Your task to perform on an android device: toggle priority inbox in the gmail app Image 0: 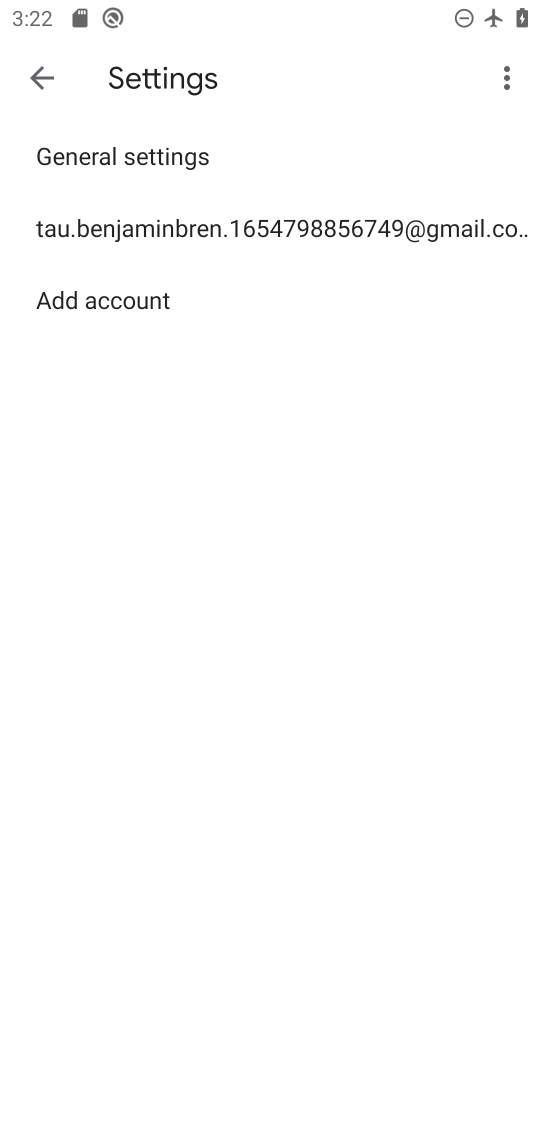
Step 0: press back button
Your task to perform on an android device: toggle priority inbox in the gmail app Image 1: 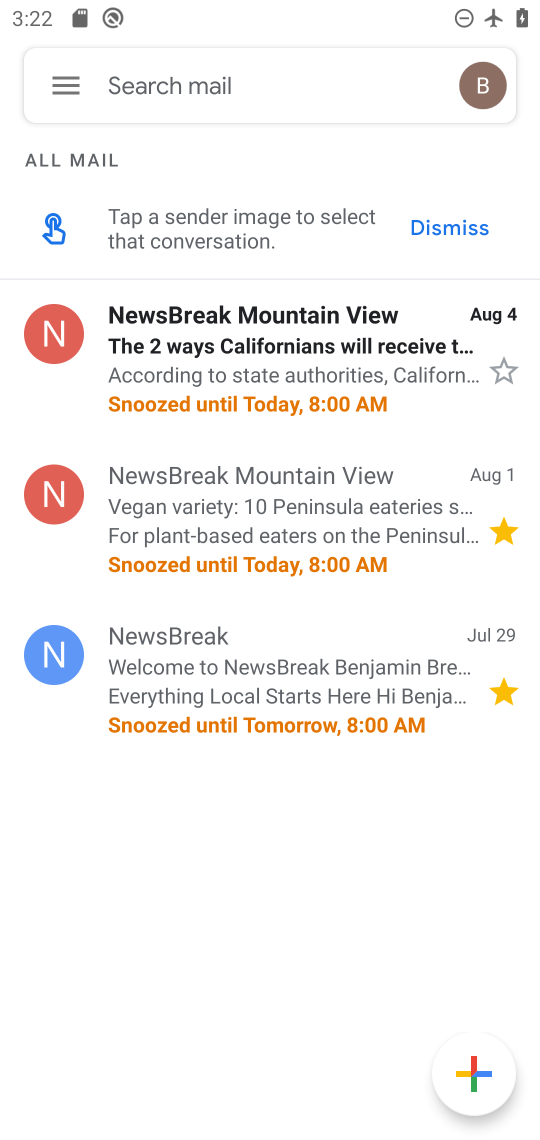
Step 1: click (41, 80)
Your task to perform on an android device: toggle priority inbox in the gmail app Image 2: 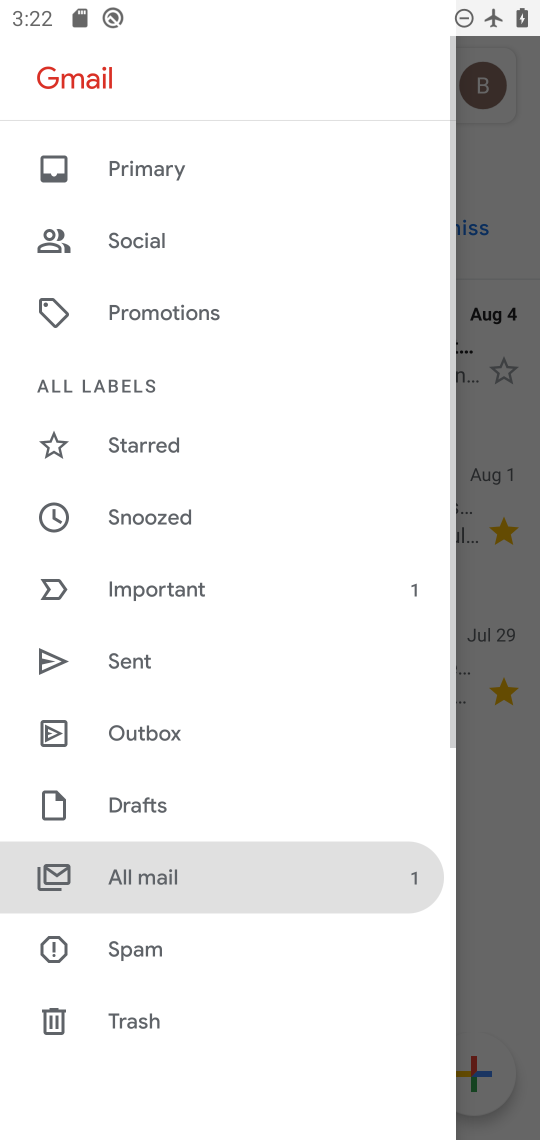
Step 2: drag from (195, 938) to (201, 208)
Your task to perform on an android device: toggle priority inbox in the gmail app Image 3: 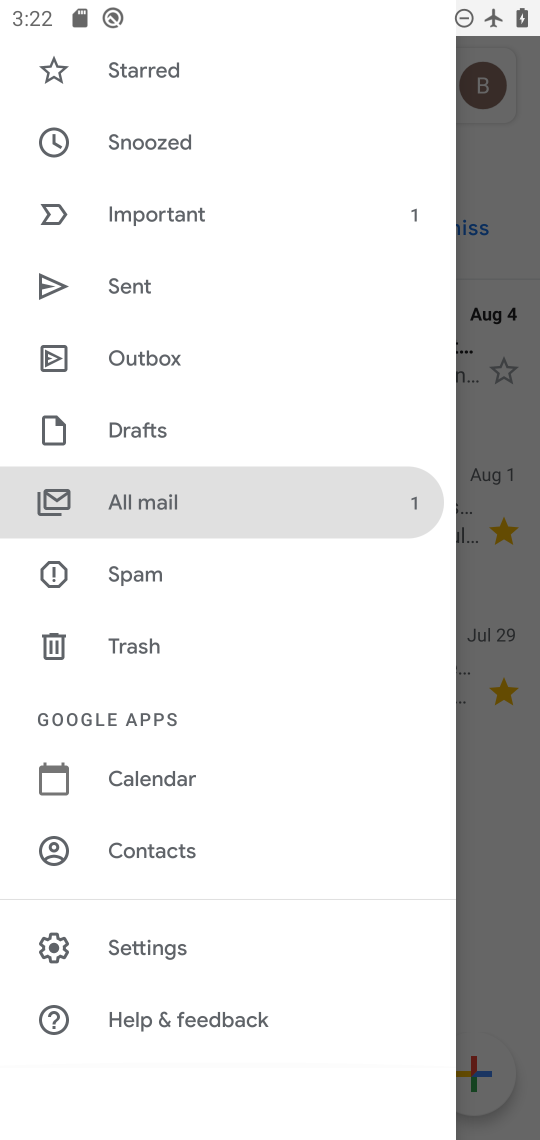
Step 3: click (176, 952)
Your task to perform on an android device: toggle priority inbox in the gmail app Image 4: 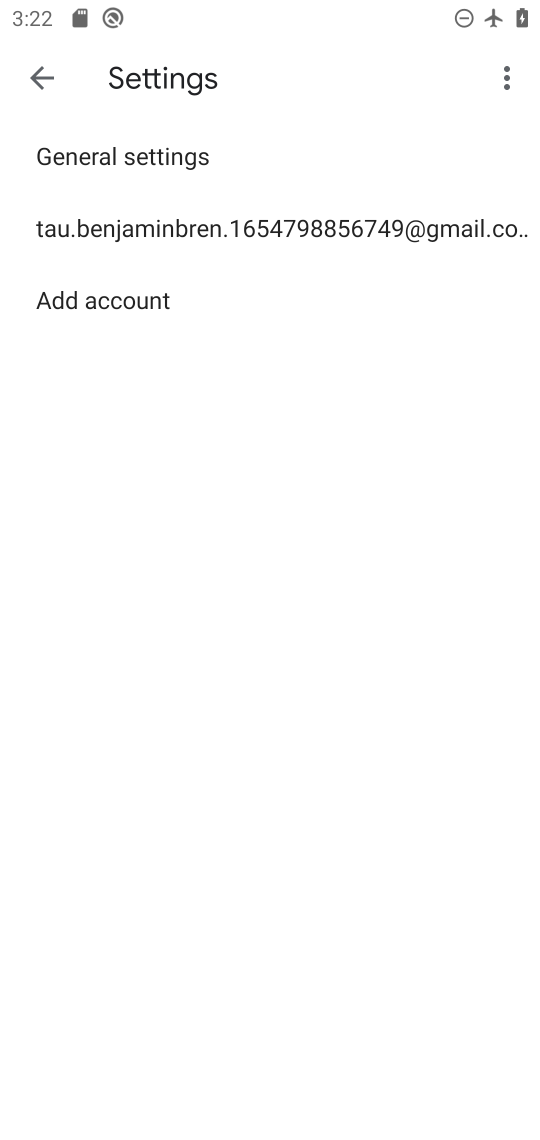
Step 4: click (98, 227)
Your task to perform on an android device: toggle priority inbox in the gmail app Image 5: 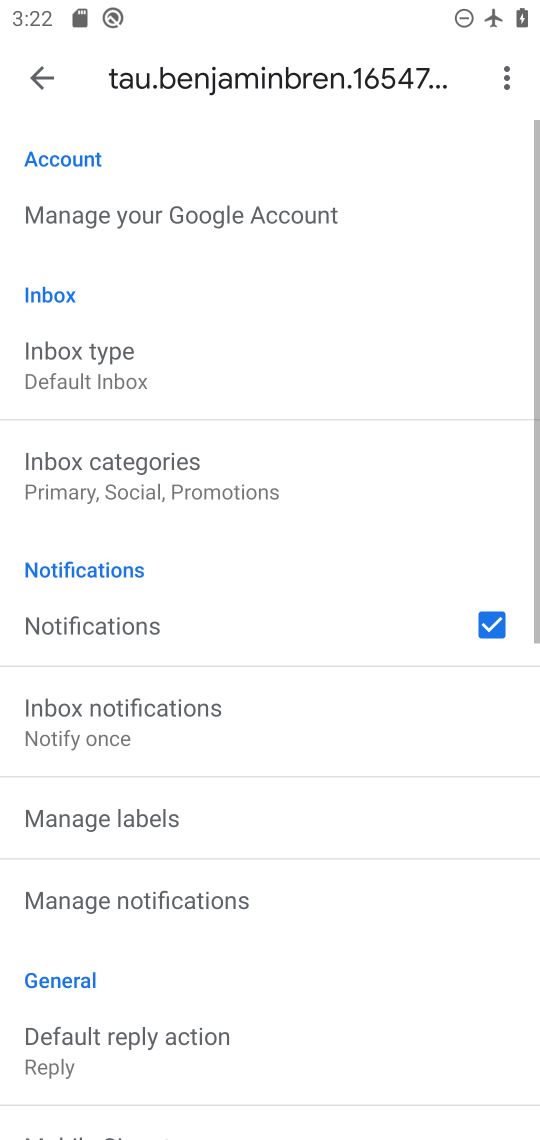
Step 5: click (110, 345)
Your task to perform on an android device: toggle priority inbox in the gmail app Image 6: 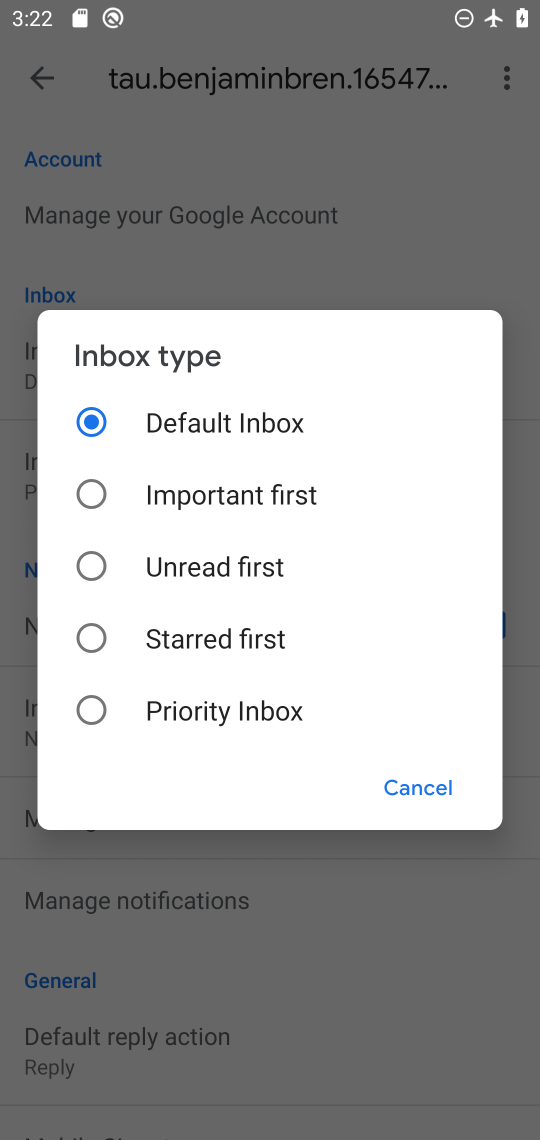
Step 6: click (175, 717)
Your task to perform on an android device: toggle priority inbox in the gmail app Image 7: 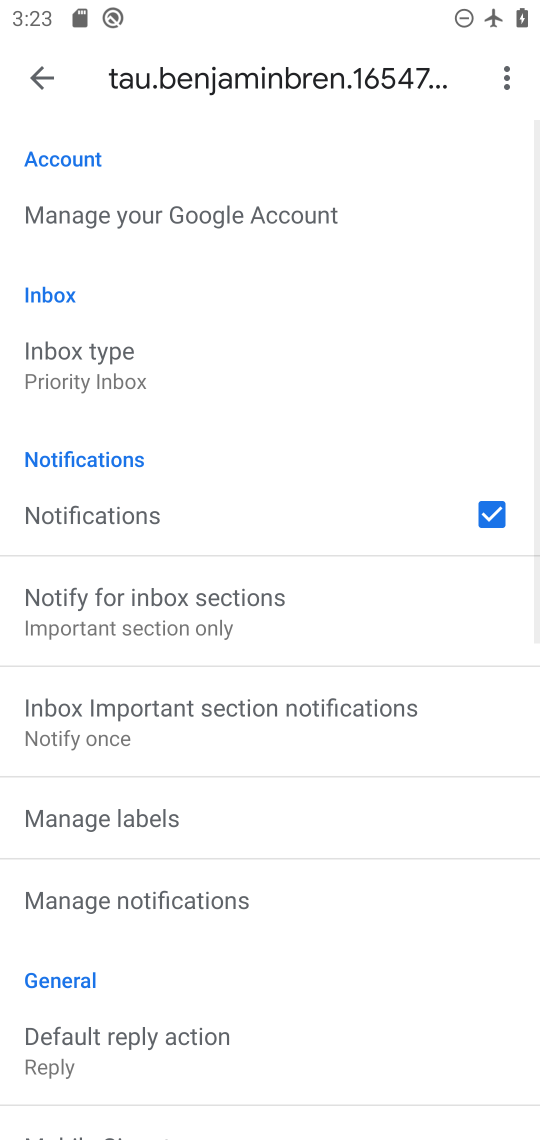
Step 7: task complete